Your task to perform on an android device: Search for usb-a on bestbuy, select the first entry, add it to the cart, then select checkout. Image 0: 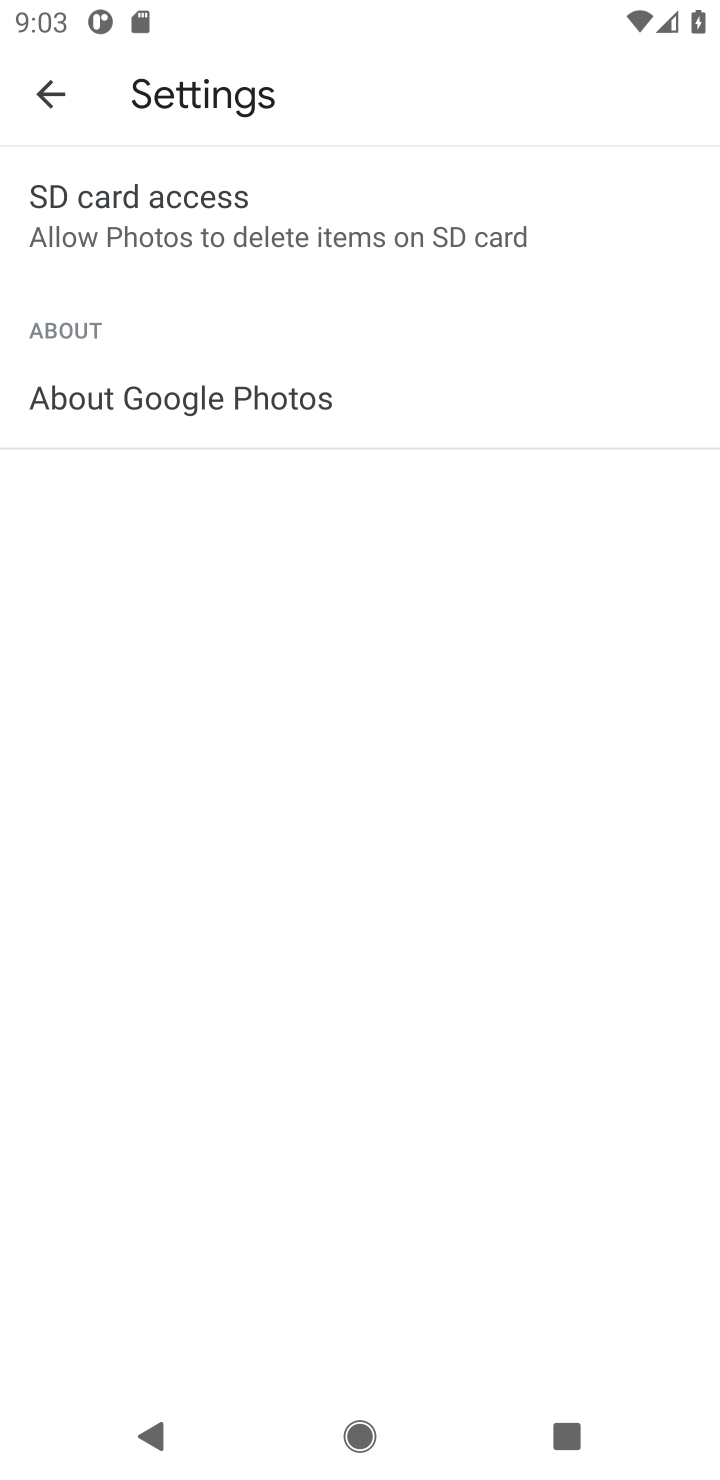
Step 0: press home button
Your task to perform on an android device: Search for usb-a on bestbuy, select the first entry, add it to the cart, then select checkout. Image 1: 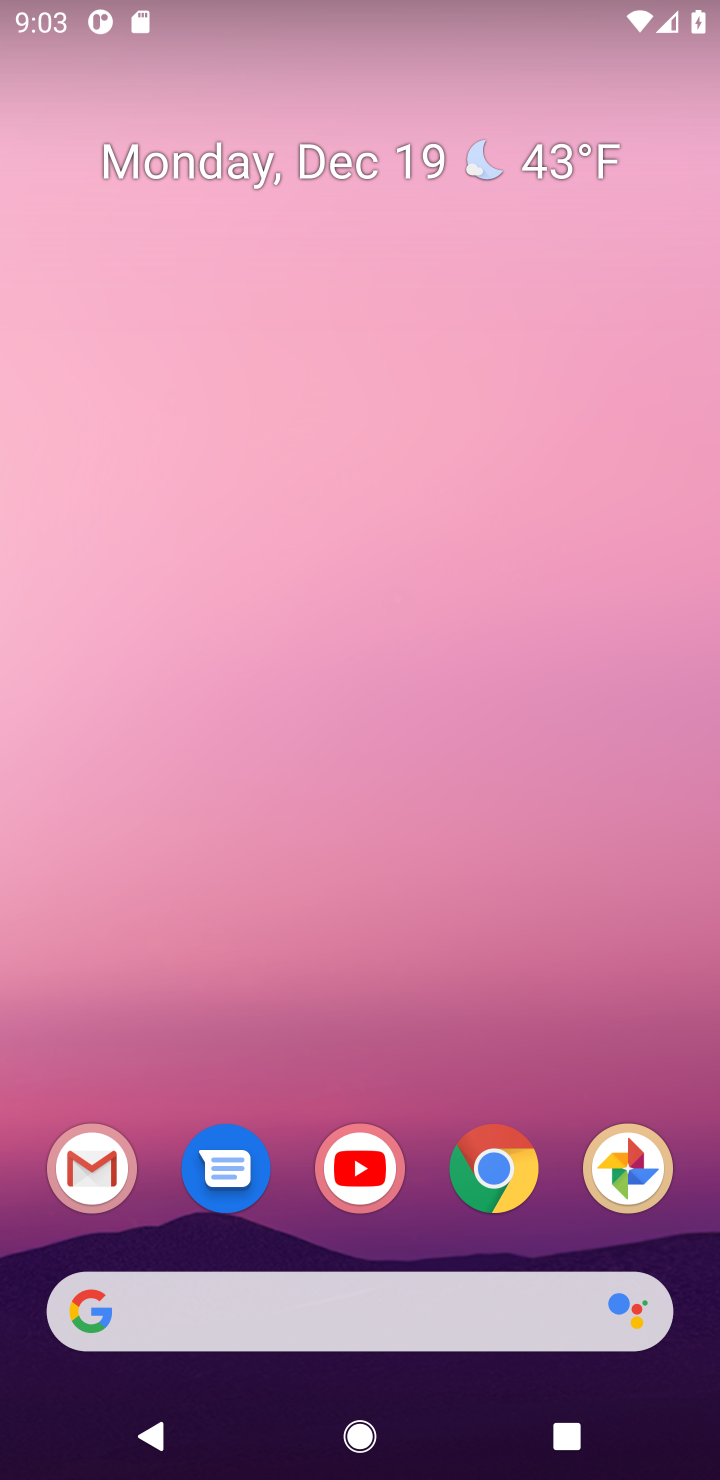
Step 1: click (495, 1178)
Your task to perform on an android device: Search for usb-a on bestbuy, select the first entry, add it to the cart, then select checkout. Image 2: 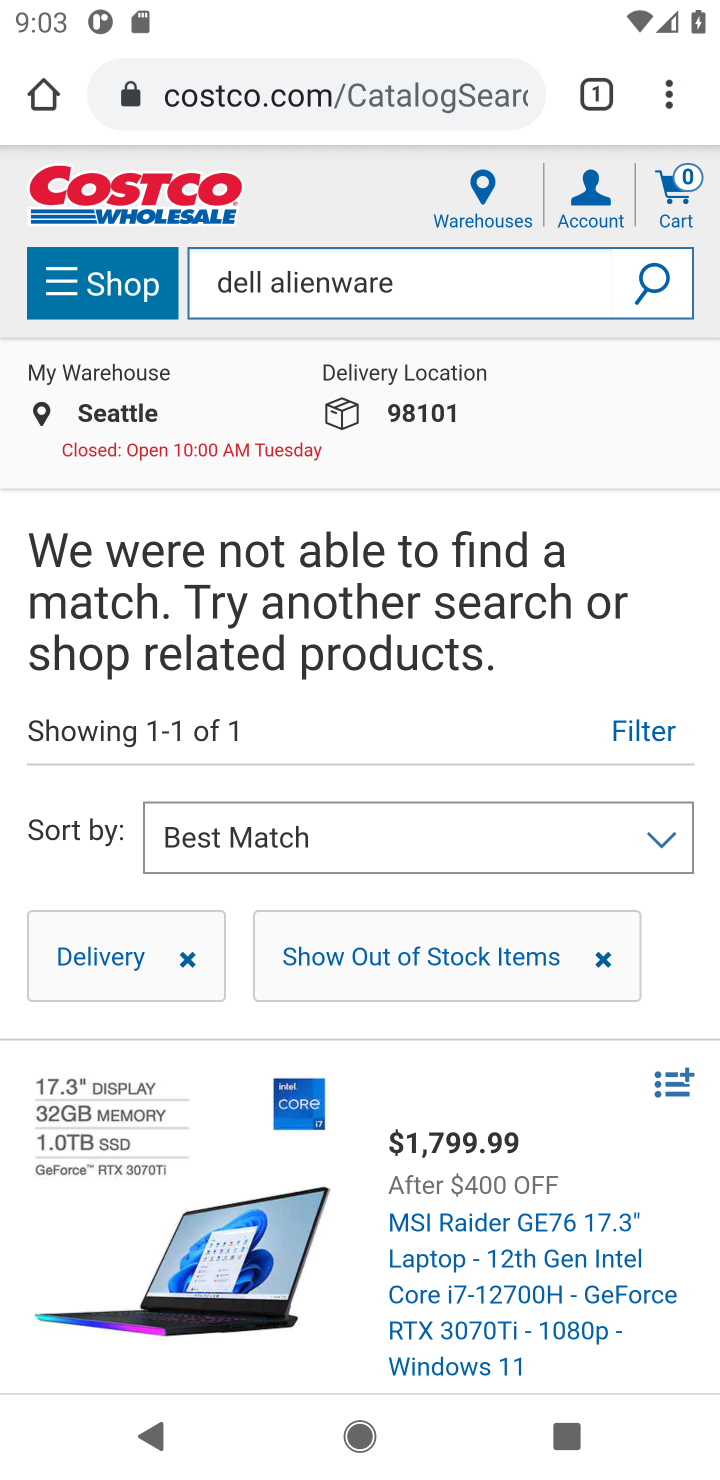
Step 2: click (293, 97)
Your task to perform on an android device: Search for usb-a on bestbuy, select the first entry, add it to the cart, then select checkout. Image 3: 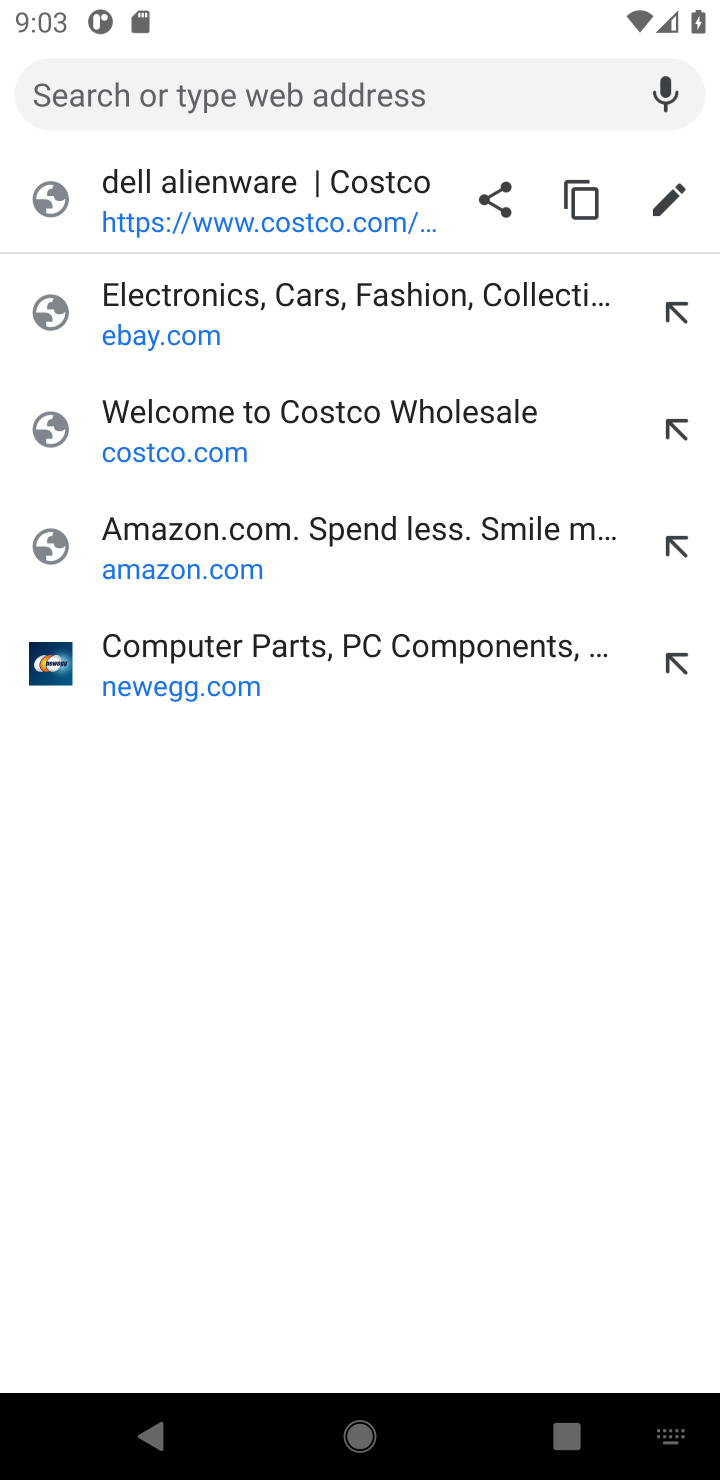
Step 3: type "bestbuy.com"
Your task to perform on an android device: Search for usb-a on bestbuy, select the first entry, add it to the cart, then select checkout. Image 4: 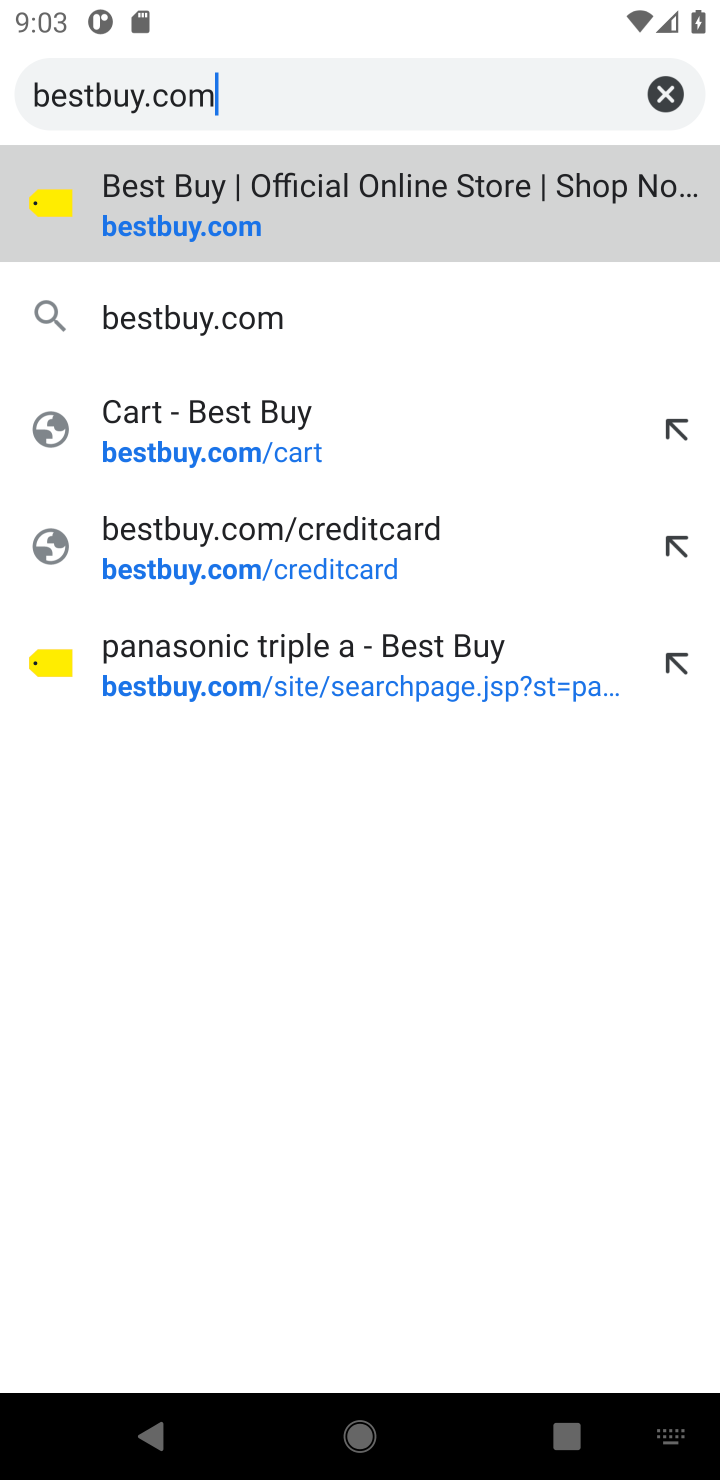
Step 4: click (182, 207)
Your task to perform on an android device: Search for usb-a on bestbuy, select the first entry, add it to the cart, then select checkout. Image 5: 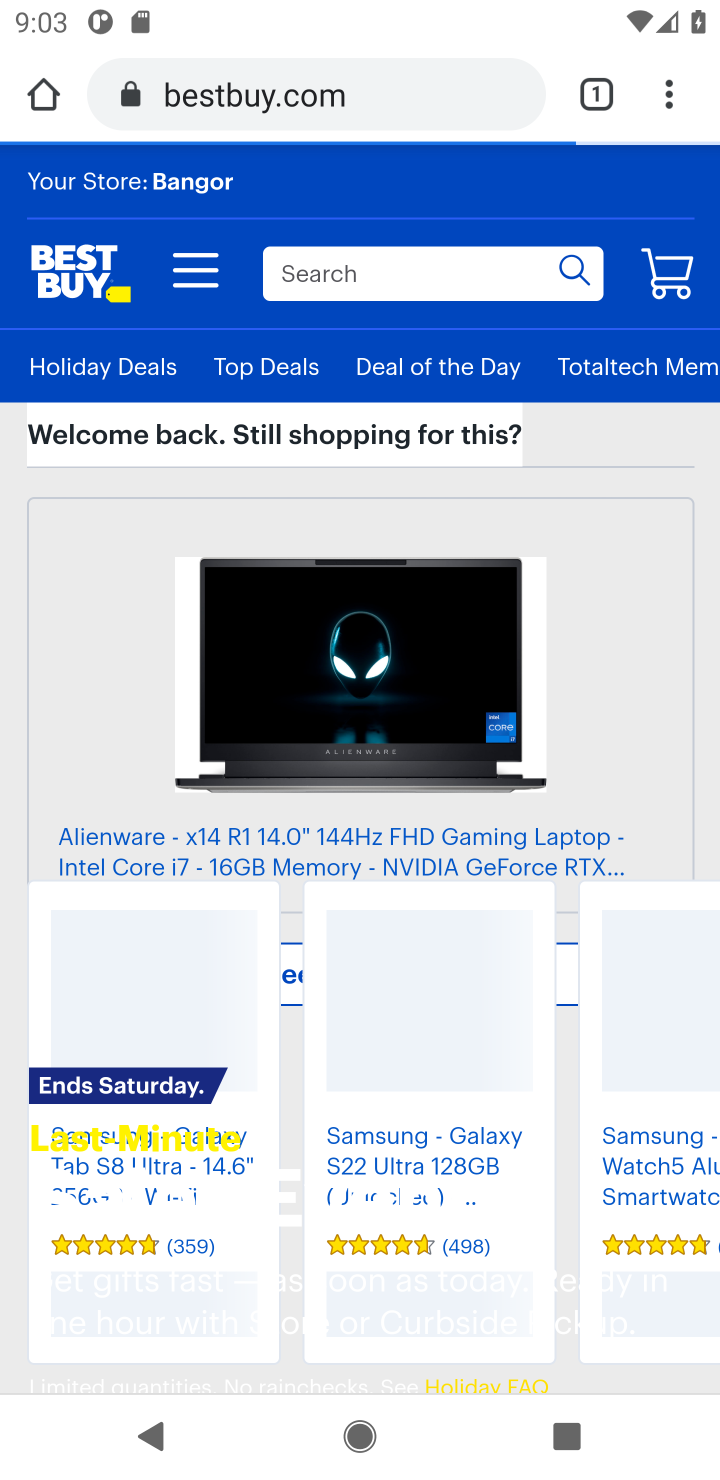
Step 5: click (280, 261)
Your task to perform on an android device: Search for usb-a on bestbuy, select the first entry, add it to the cart, then select checkout. Image 6: 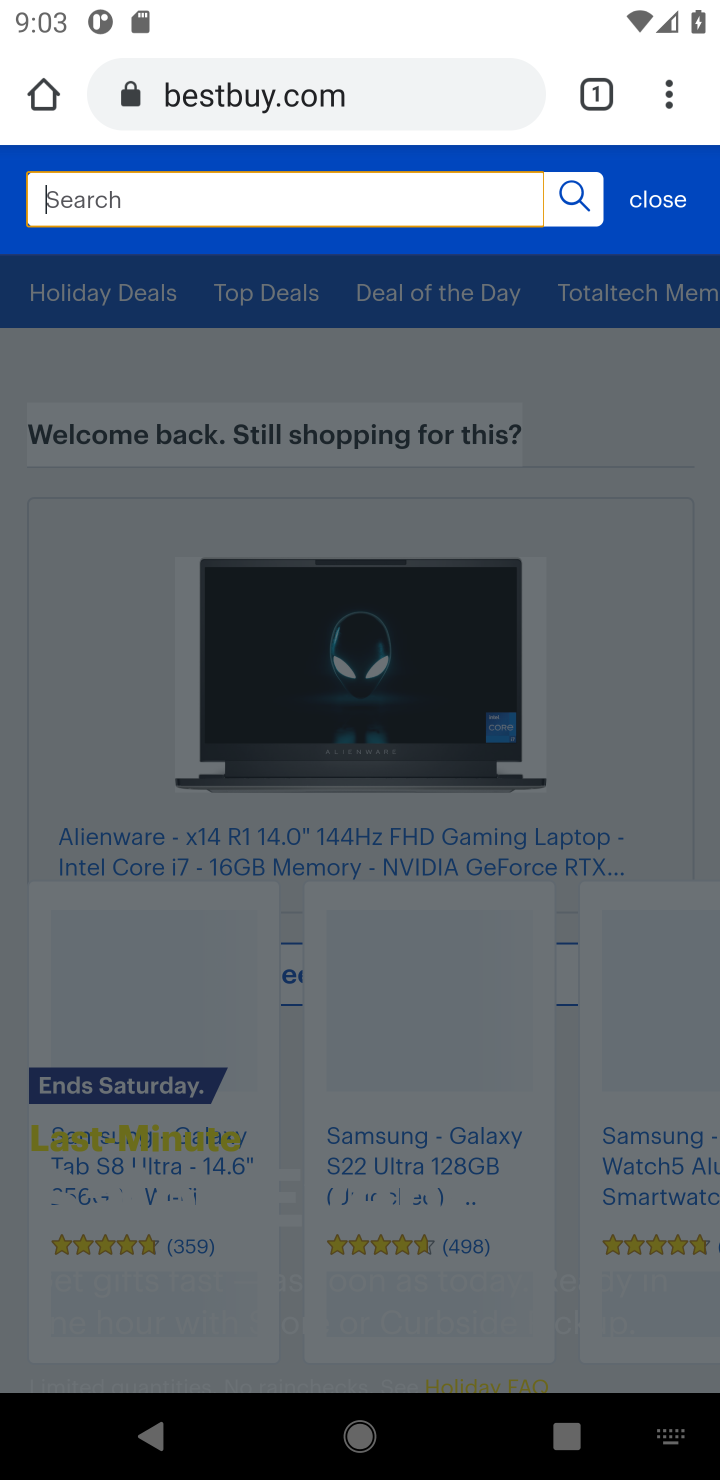
Step 6: type "usb-a"
Your task to perform on an android device: Search for usb-a on bestbuy, select the first entry, add it to the cart, then select checkout. Image 7: 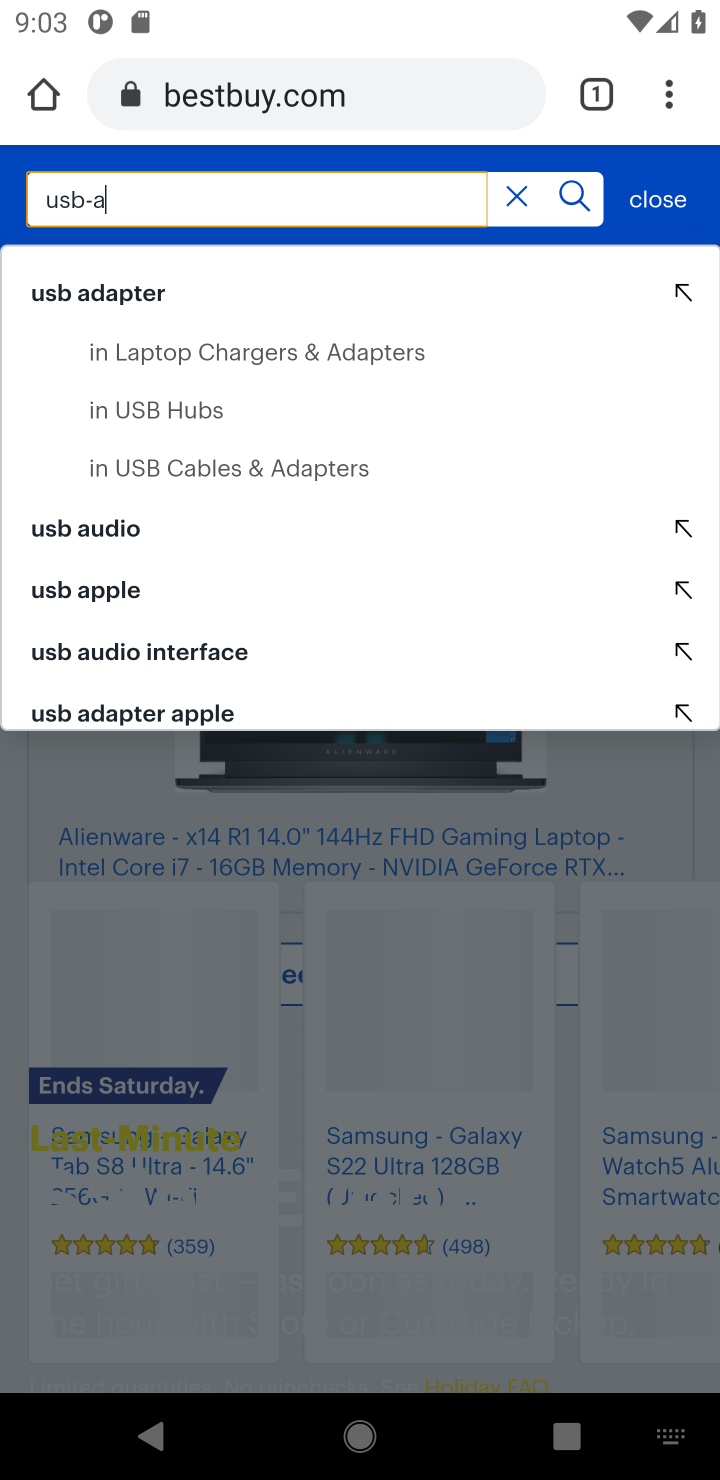
Step 7: click (566, 200)
Your task to perform on an android device: Search for usb-a on bestbuy, select the first entry, add it to the cart, then select checkout. Image 8: 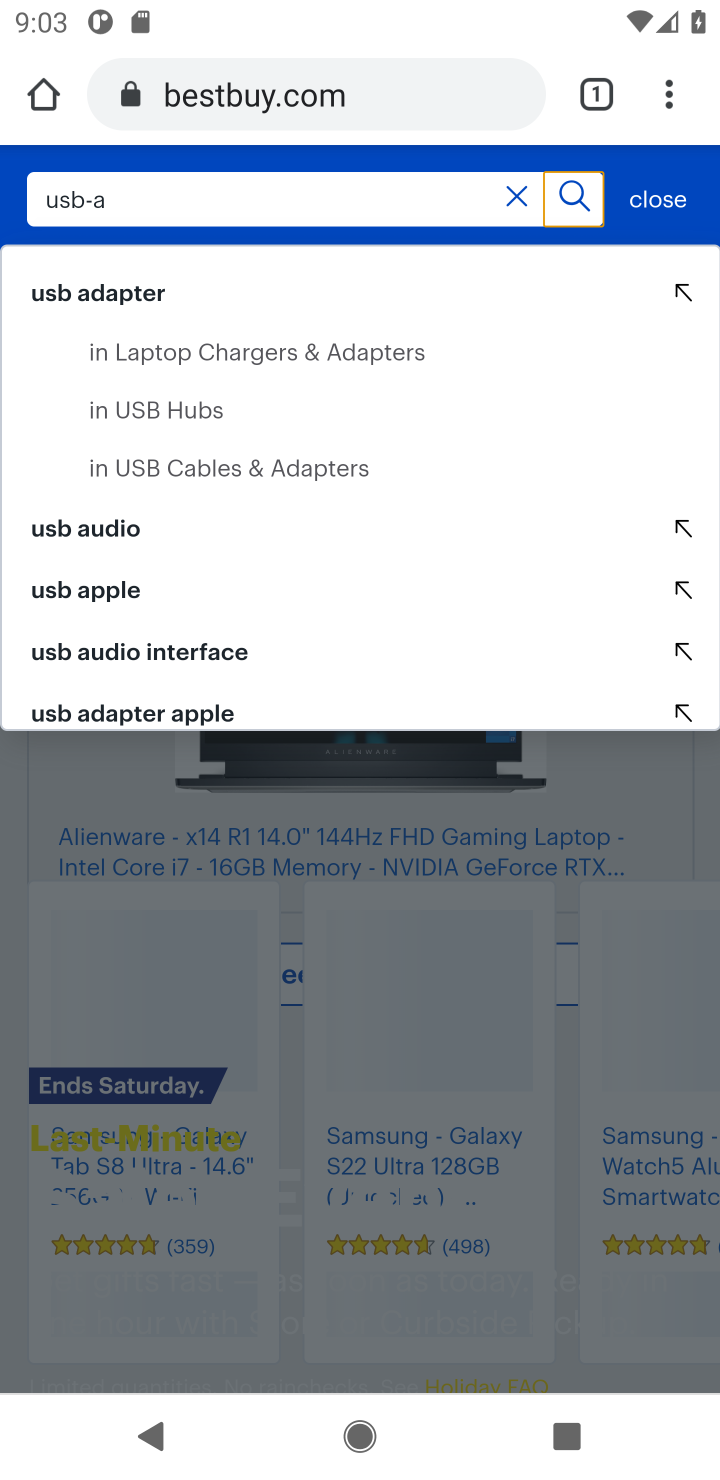
Step 8: click (566, 204)
Your task to perform on an android device: Search for usb-a on bestbuy, select the first entry, add it to the cart, then select checkout. Image 9: 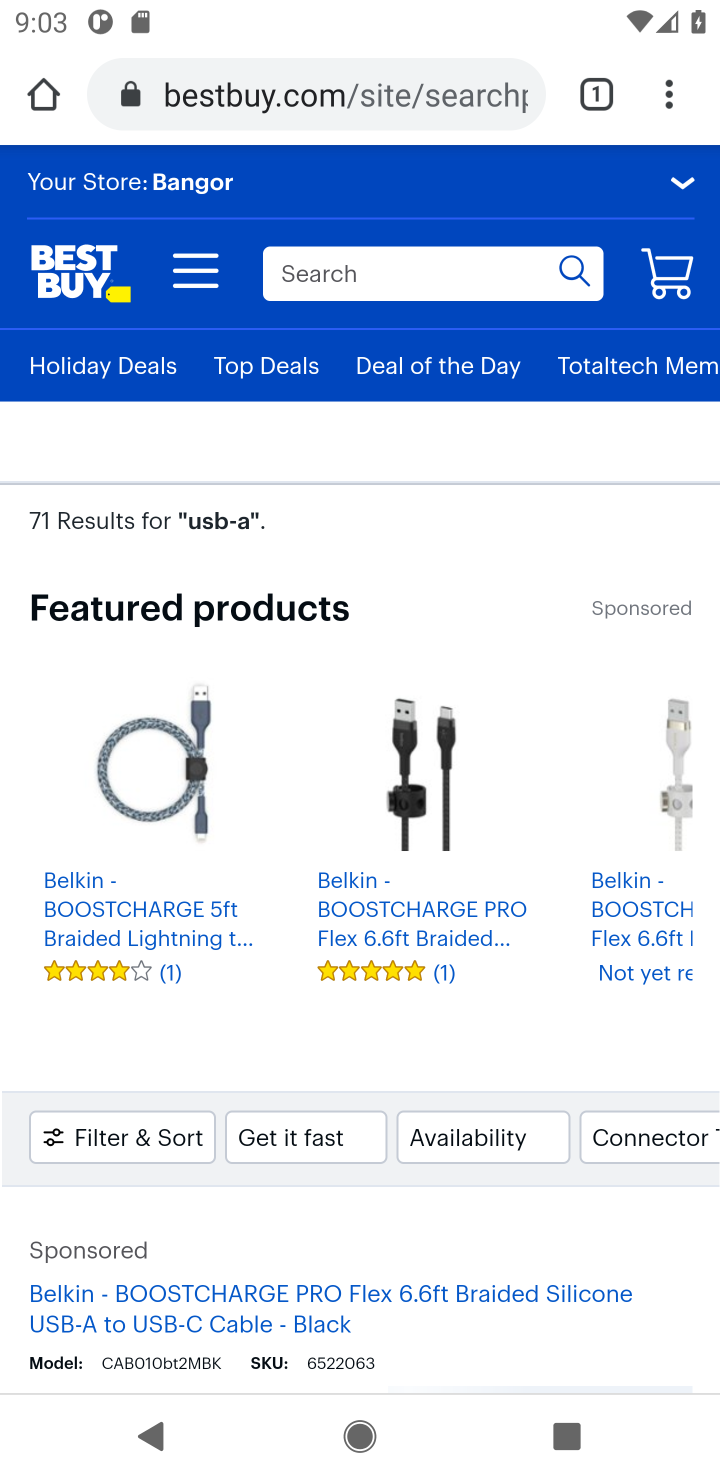
Step 9: drag from (252, 1077) to (260, 671)
Your task to perform on an android device: Search for usb-a on bestbuy, select the first entry, add it to the cart, then select checkout. Image 10: 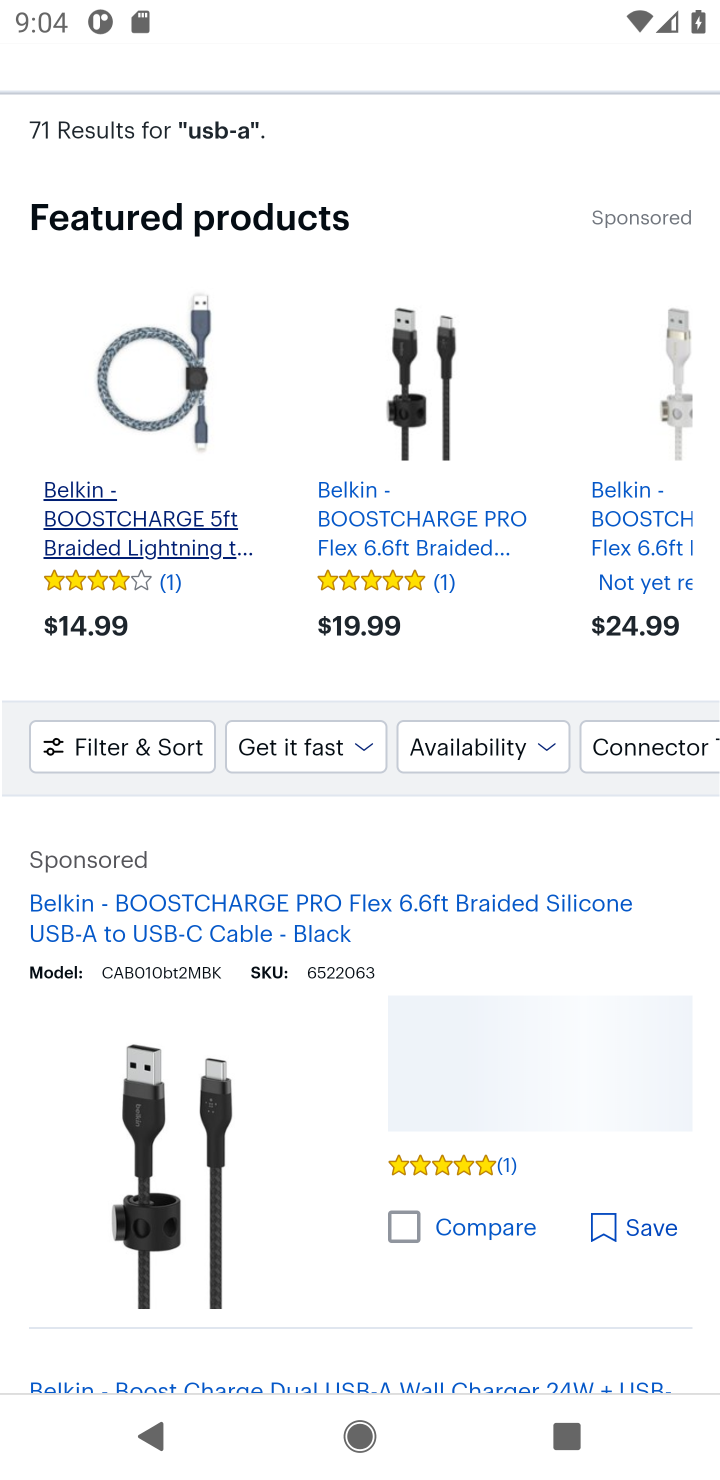
Step 10: drag from (301, 956) to (295, 617)
Your task to perform on an android device: Search for usb-a on bestbuy, select the first entry, add it to the cart, then select checkout. Image 11: 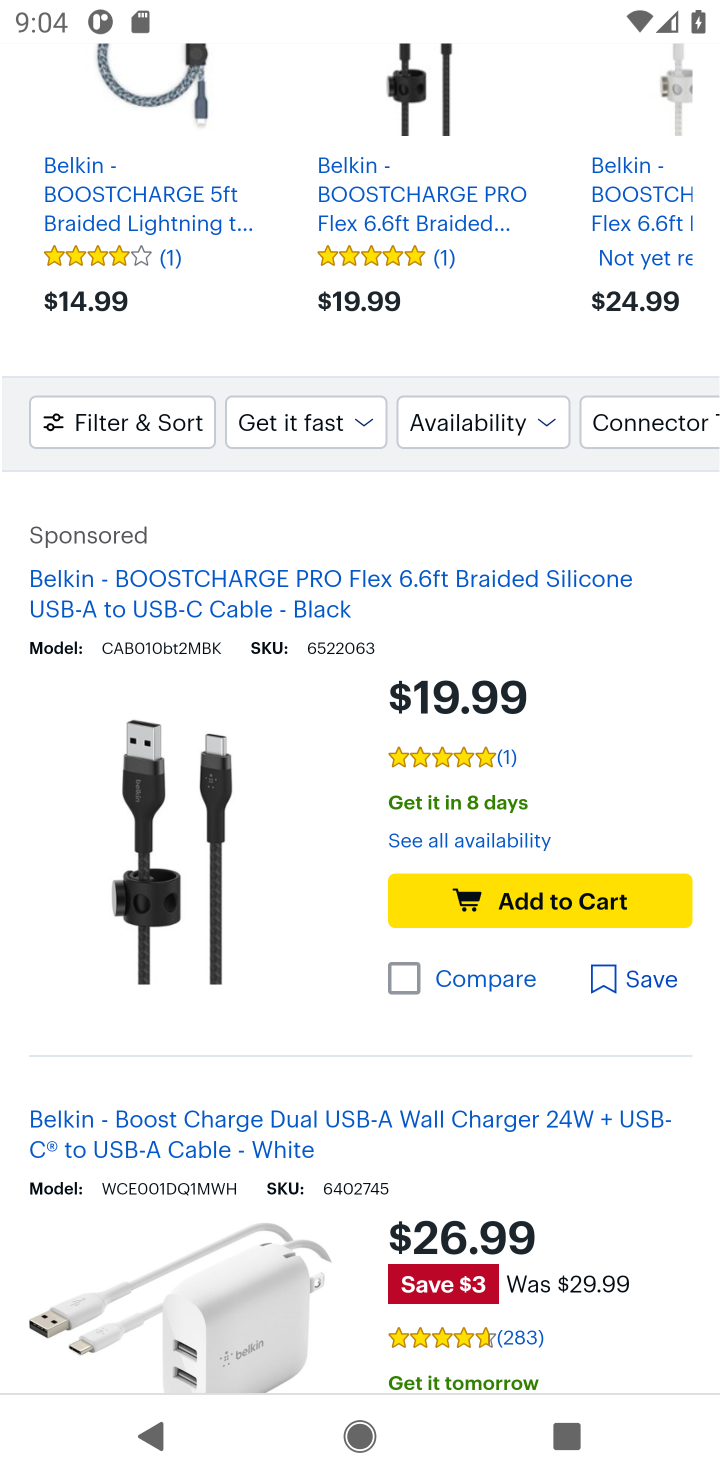
Step 11: click (499, 903)
Your task to perform on an android device: Search for usb-a on bestbuy, select the first entry, add it to the cart, then select checkout. Image 12: 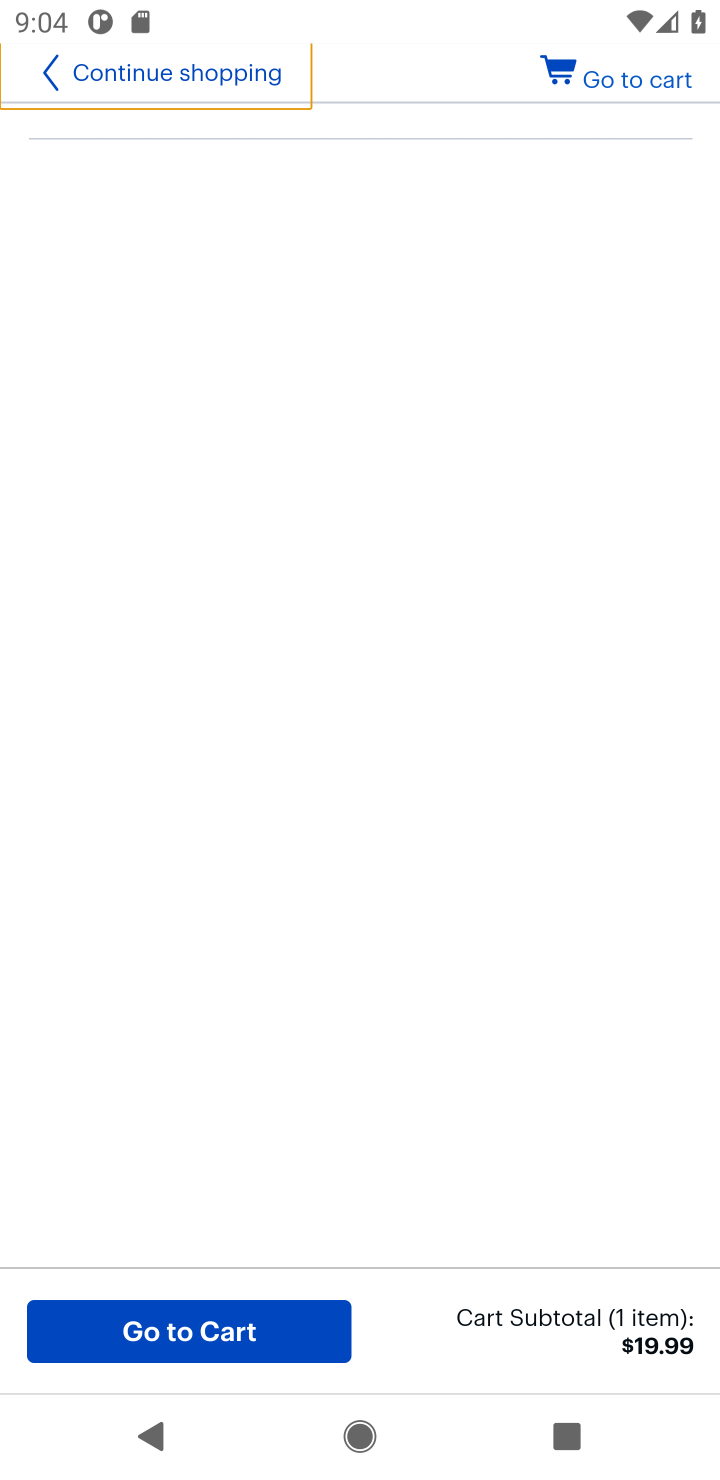
Step 12: click (624, 86)
Your task to perform on an android device: Search for usb-a on bestbuy, select the first entry, add it to the cart, then select checkout. Image 13: 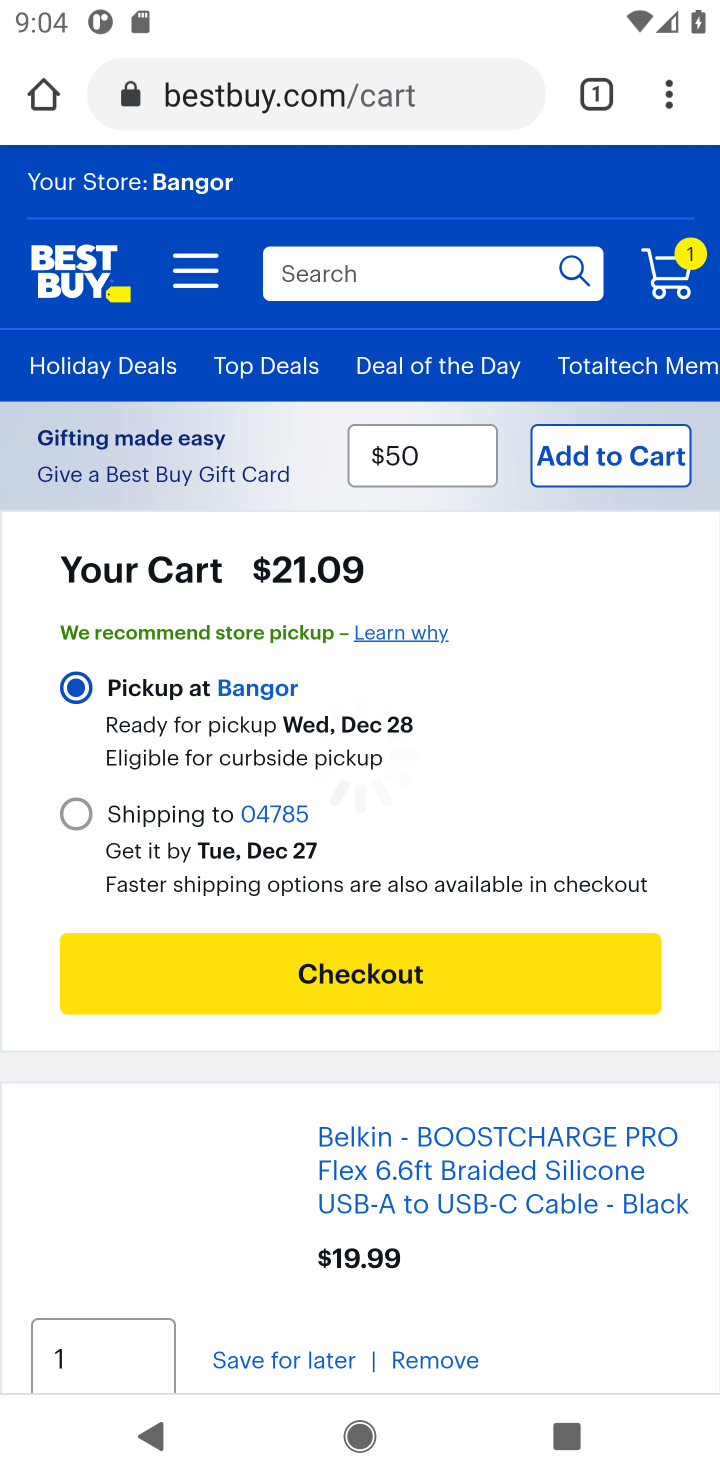
Step 13: click (303, 964)
Your task to perform on an android device: Search for usb-a on bestbuy, select the first entry, add it to the cart, then select checkout. Image 14: 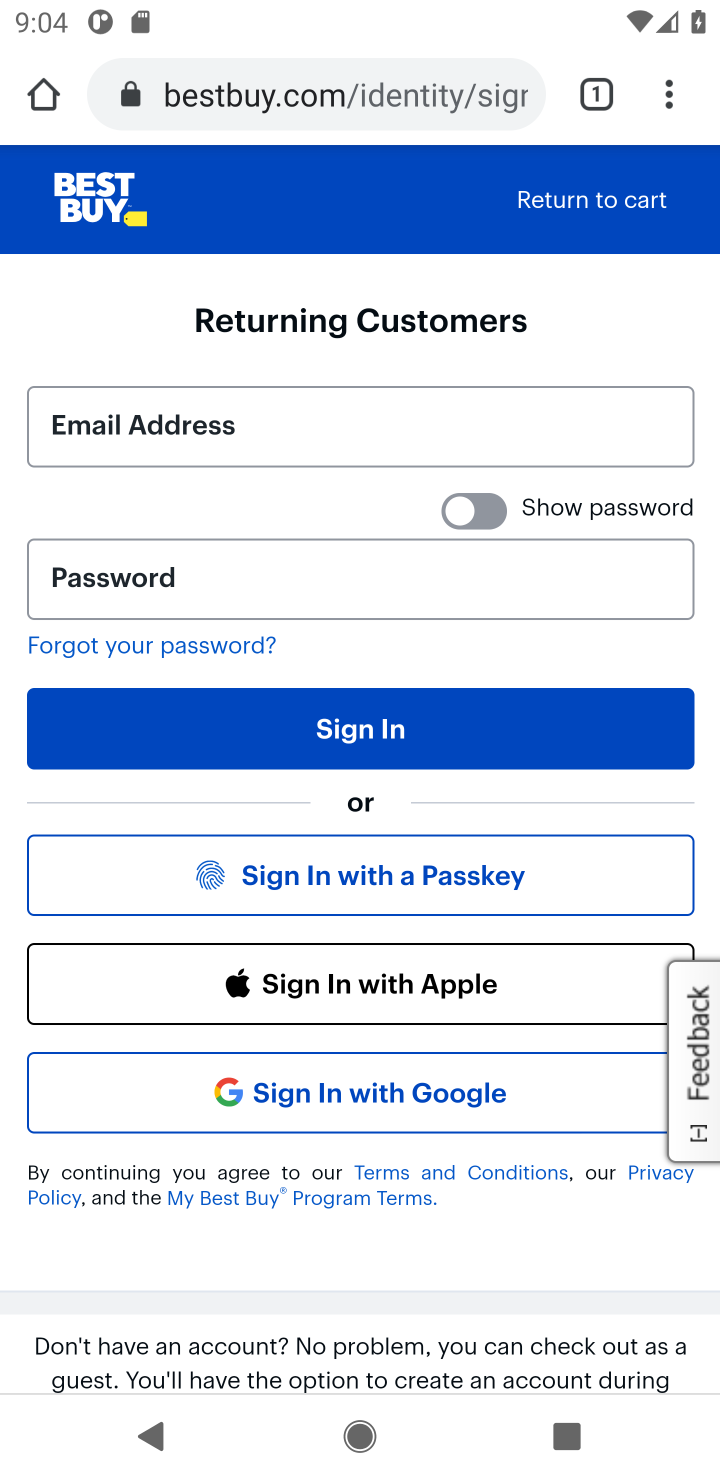
Step 14: task complete